Your task to perform on an android device: open app "Google Photos" Image 0: 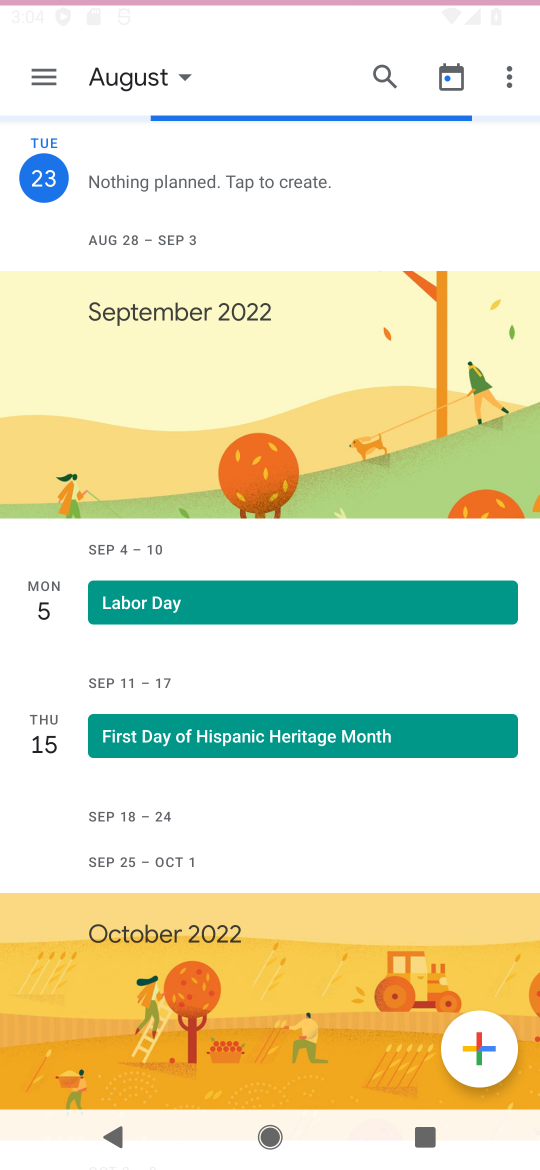
Step 0: press home button
Your task to perform on an android device: open app "Google Photos" Image 1: 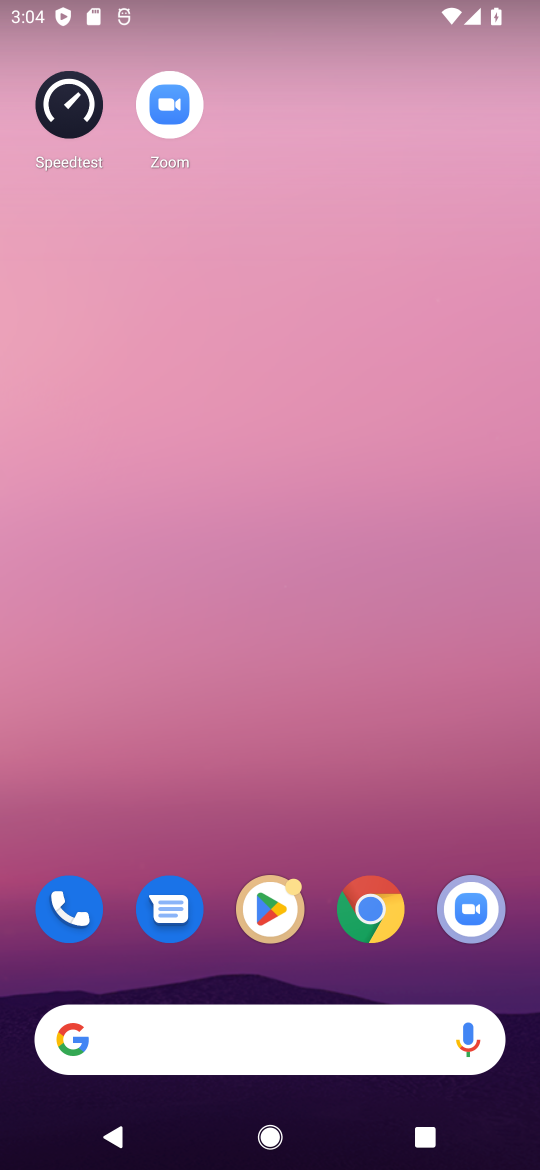
Step 1: click (264, 901)
Your task to perform on an android device: open app "Google Photos" Image 2: 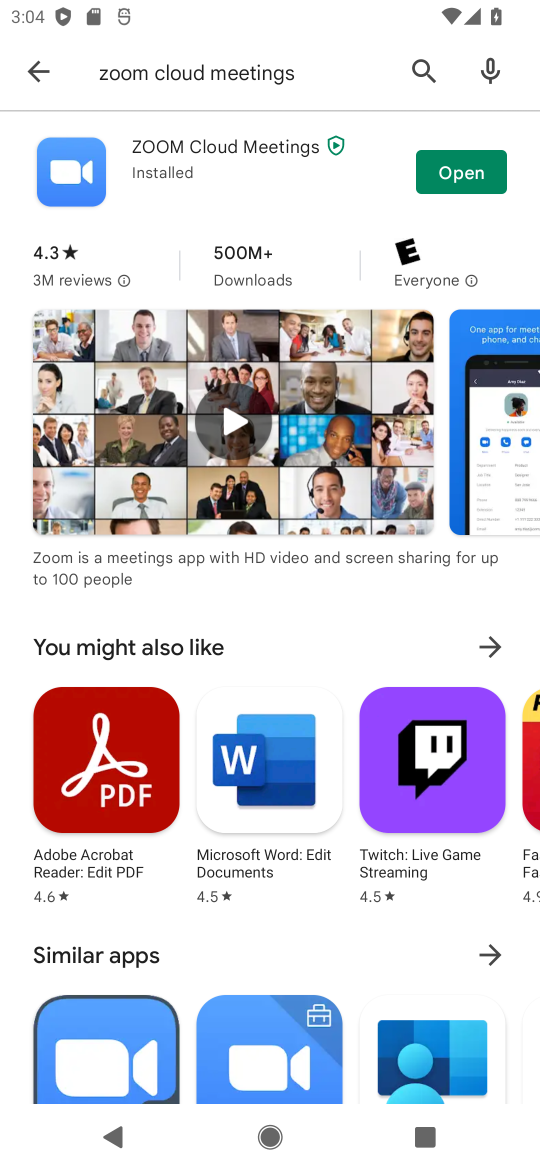
Step 2: click (419, 76)
Your task to perform on an android device: open app "Google Photos" Image 3: 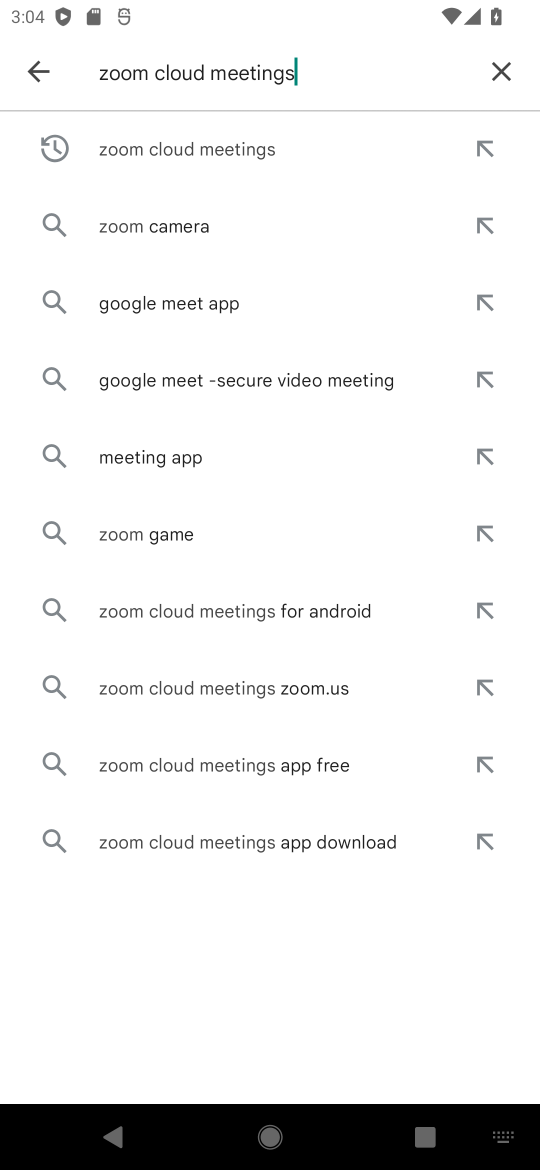
Step 3: click (497, 76)
Your task to perform on an android device: open app "Google Photos" Image 4: 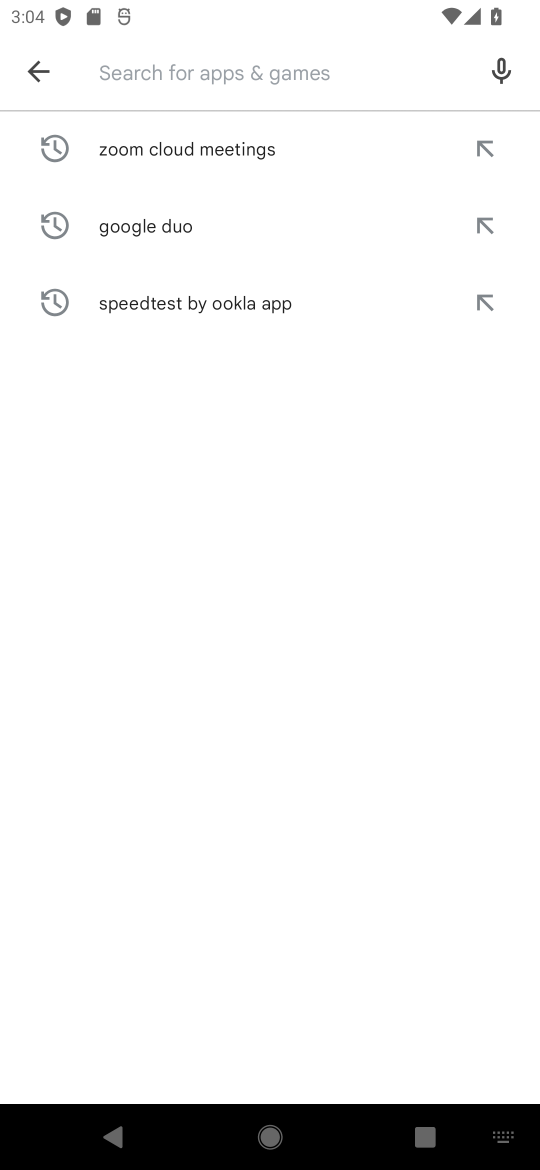
Step 4: type "Google Photos"
Your task to perform on an android device: open app "Google Photos" Image 5: 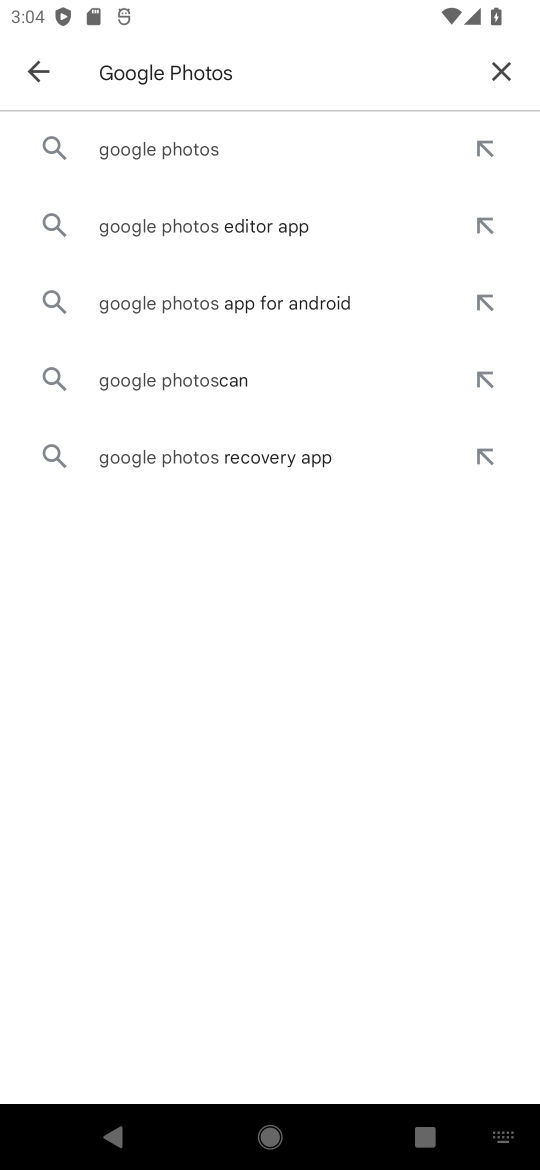
Step 5: click (196, 164)
Your task to perform on an android device: open app "Google Photos" Image 6: 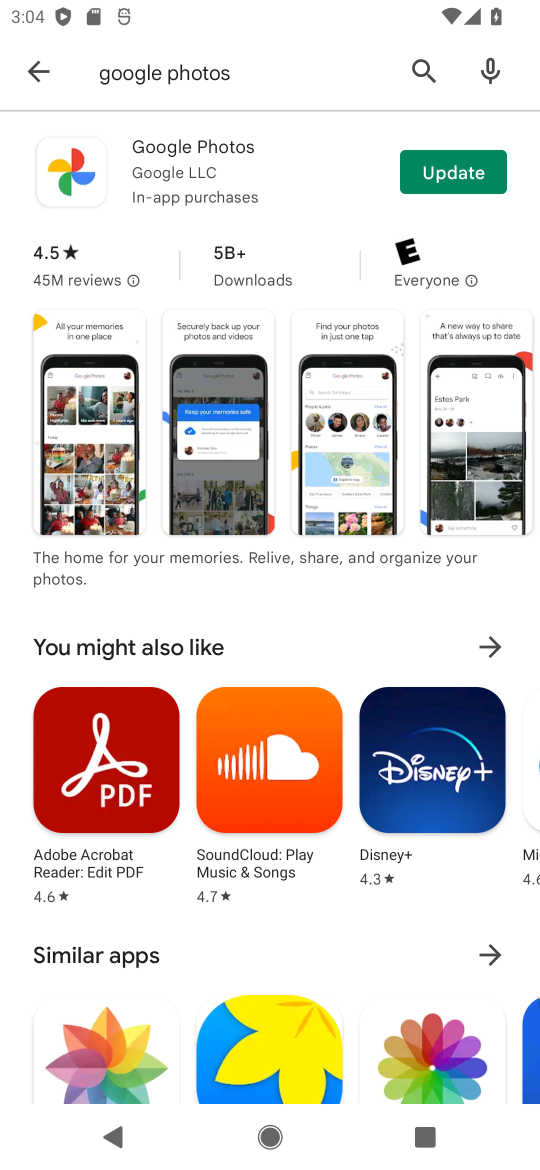
Step 6: click (480, 175)
Your task to perform on an android device: open app "Google Photos" Image 7: 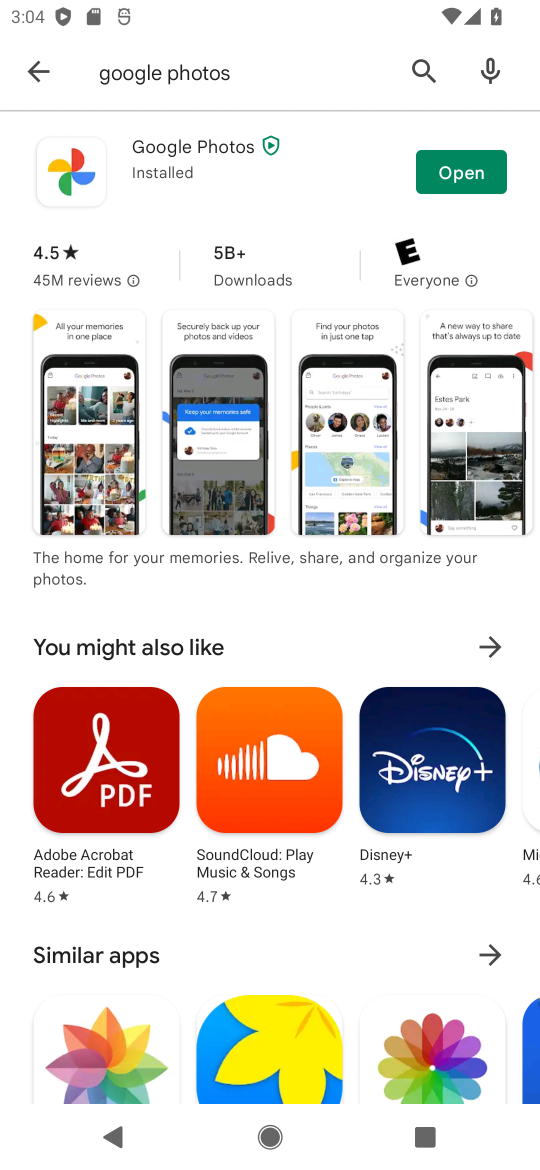
Step 7: click (465, 157)
Your task to perform on an android device: open app "Google Photos" Image 8: 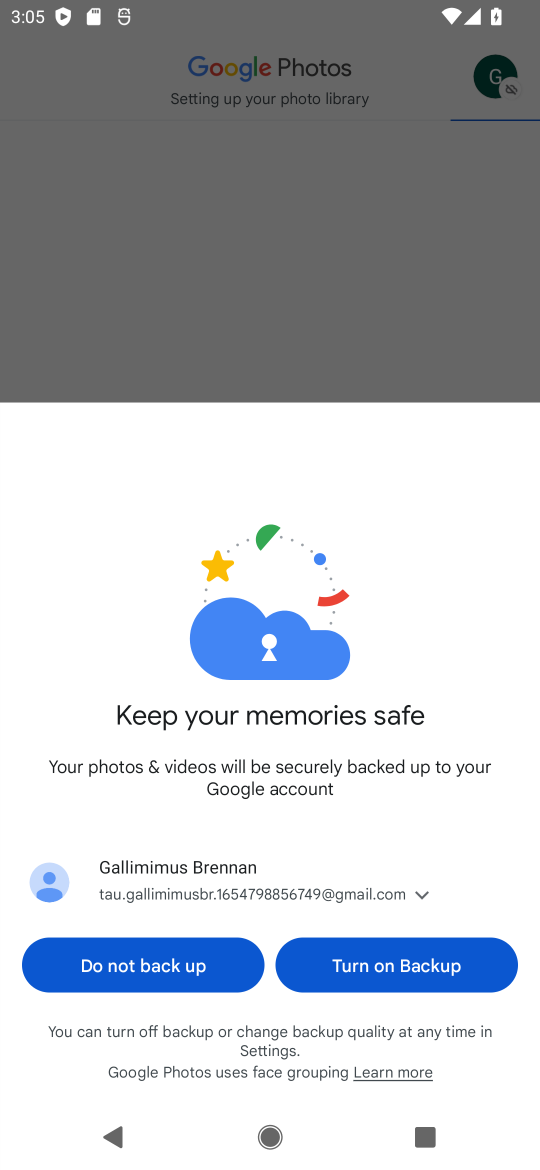
Step 8: click (383, 964)
Your task to perform on an android device: open app "Google Photos" Image 9: 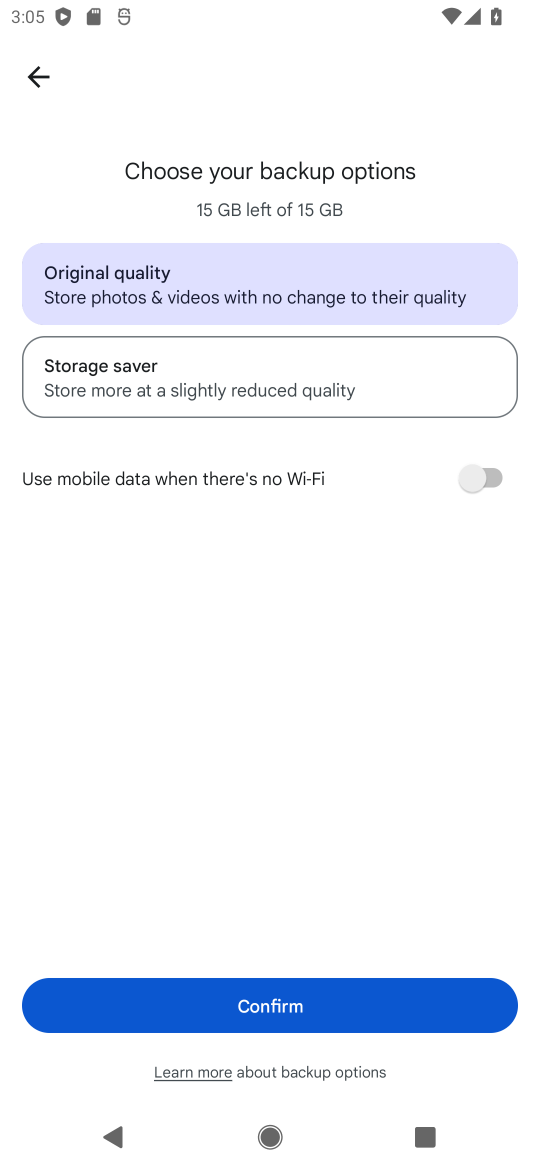
Step 9: click (275, 1009)
Your task to perform on an android device: open app "Google Photos" Image 10: 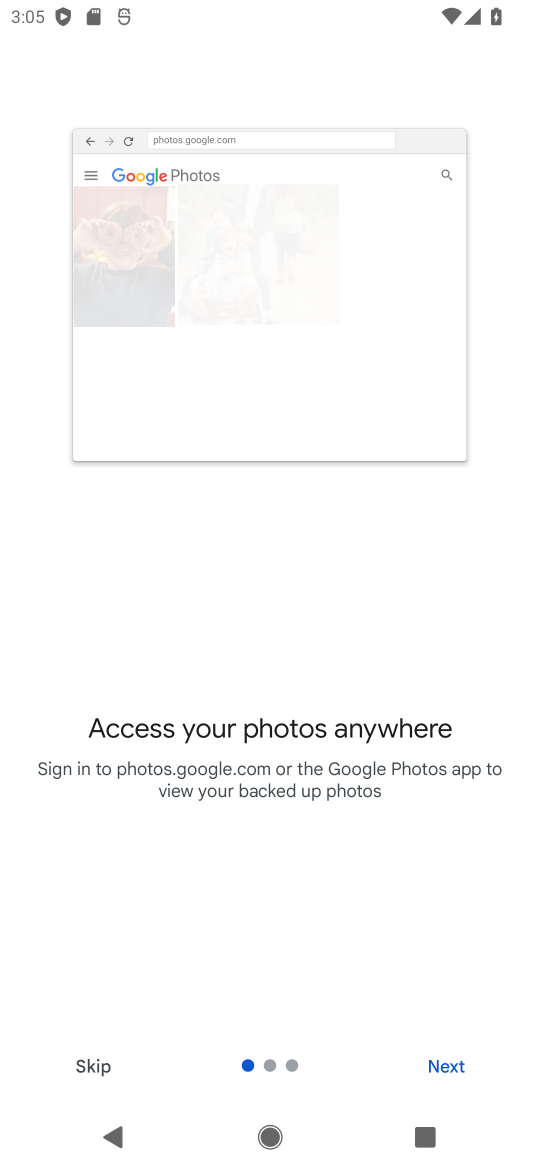
Step 10: task complete